Your task to perform on an android device: toggle priority inbox in the gmail app Image 0: 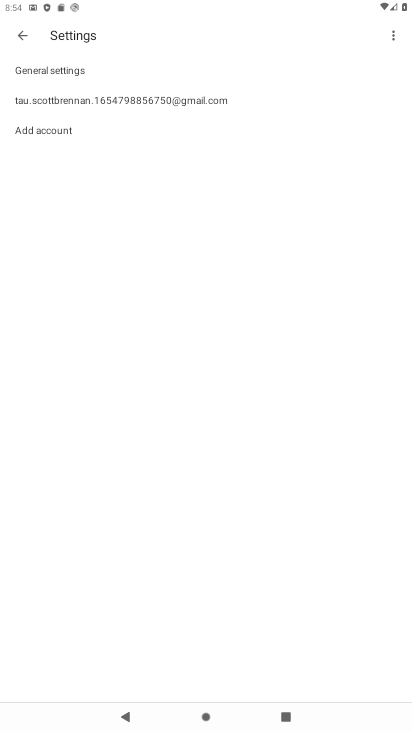
Step 0: click (70, 99)
Your task to perform on an android device: toggle priority inbox in the gmail app Image 1: 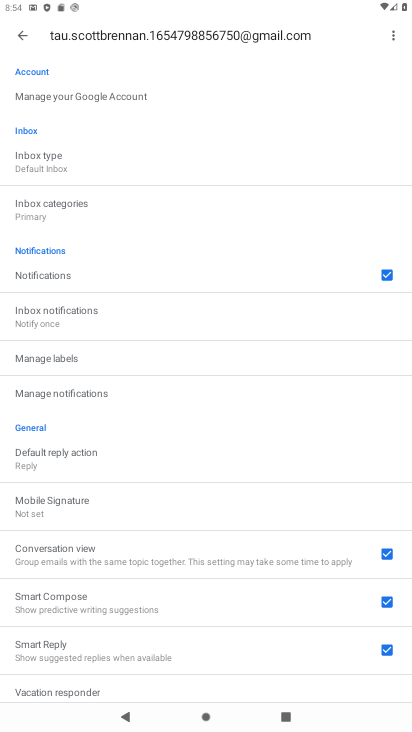
Step 1: click (41, 174)
Your task to perform on an android device: toggle priority inbox in the gmail app Image 2: 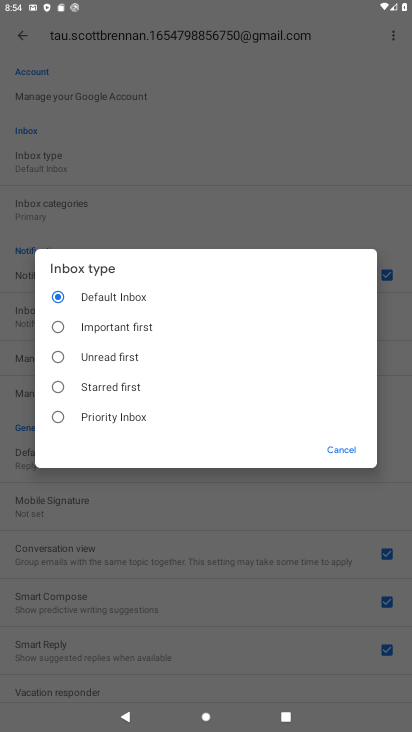
Step 2: click (57, 419)
Your task to perform on an android device: toggle priority inbox in the gmail app Image 3: 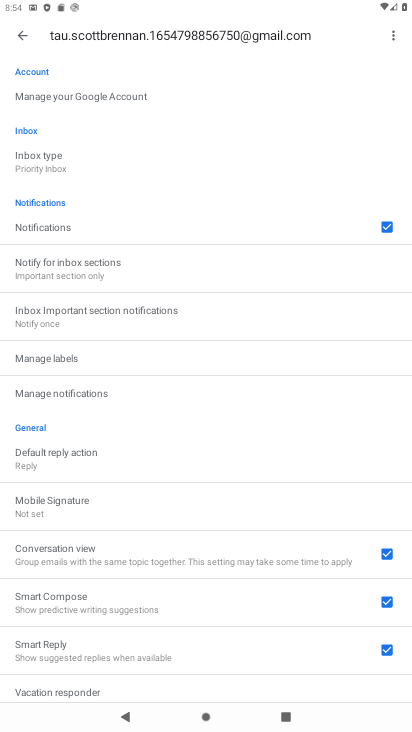
Step 3: click (19, 39)
Your task to perform on an android device: toggle priority inbox in the gmail app Image 4: 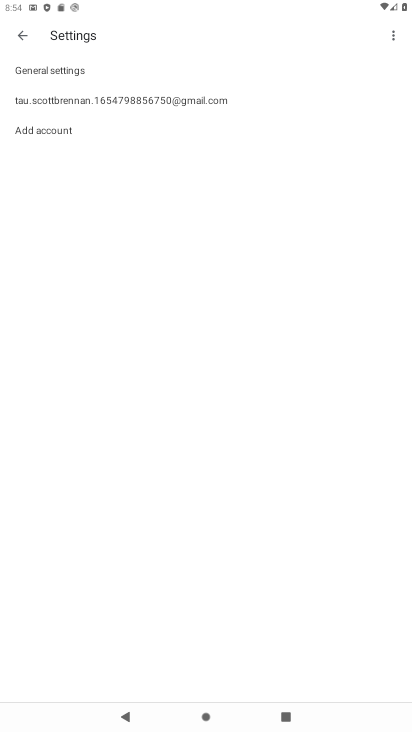
Step 4: click (67, 98)
Your task to perform on an android device: toggle priority inbox in the gmail app Image 5: 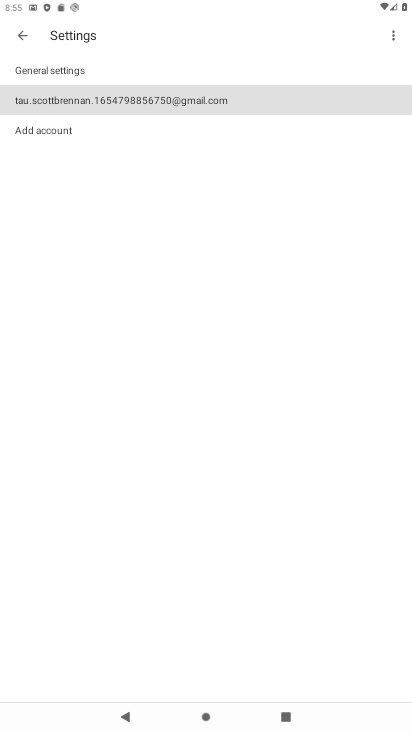
Step 5: click (67, 98)
Your task to perform on an android device: toggle priority inbox in the gmail app Image 6: 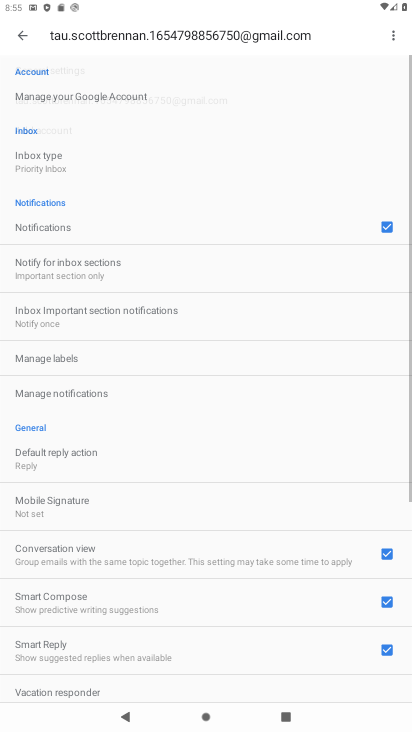
Step 6: click (68, 98)
Your task to perform on an android device: toggle priority inbox in the gmail app Image 7: 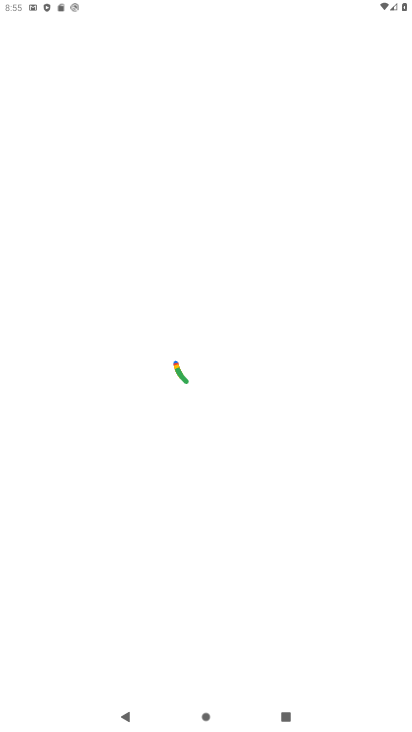
Step 7: press back button
Your task to perform on an android device: toggle priority inbox in the gmail app Image 8: 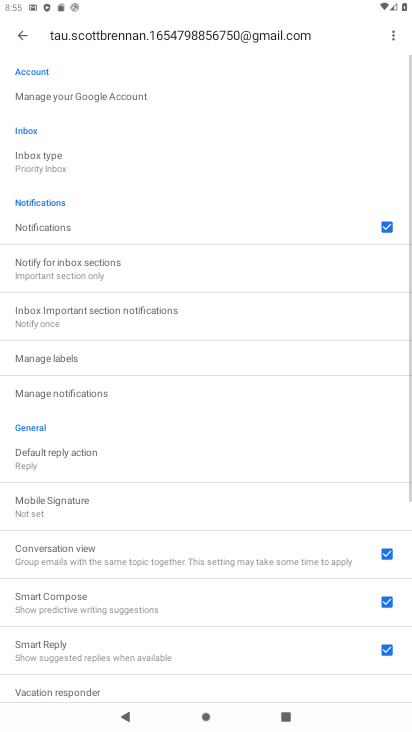
Step 8: click (19, 39)
Your task to perform on an android device: toggle priority inbox in the gmail app Image 9: 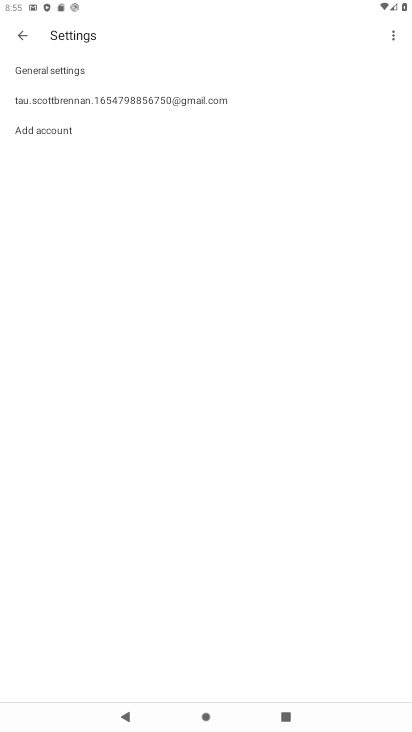
Step 9: click (67, 101)
Your task to perform on an android device: toggle priority inbox in the gmail app Image 10: 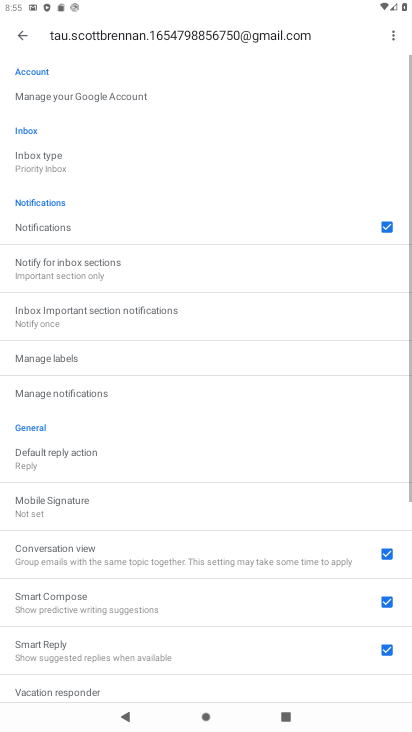
Step 10: click (37, 158)
Your task to perform on an android device: toggle priority inbox in the gmail app Image 11: 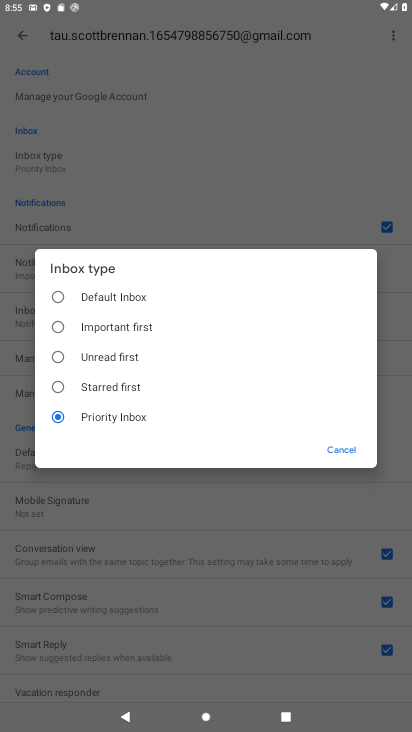
Step 11: click (344, 453)
Your task to perform on an android device: toggle priority inbox in the gmail app Image 12: 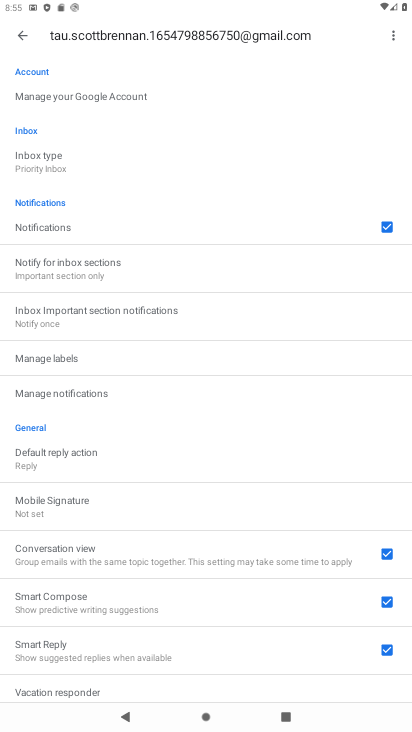
Step 12: task complete